Your task to perform on an android device: Open privacy settings Image 0: 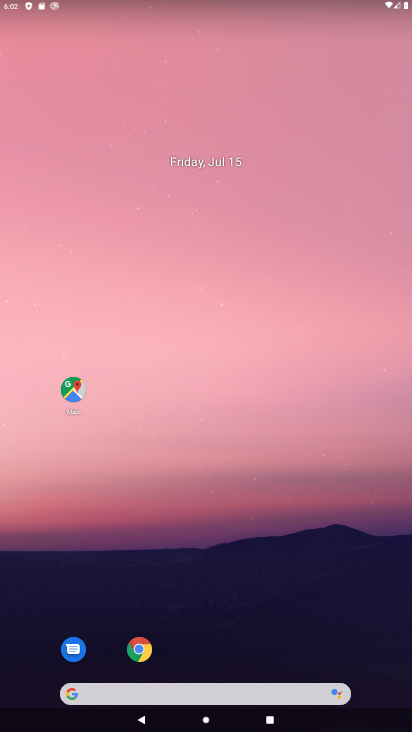
Step 0: press home button
Your task to perform on an android device: Open privacy settings Image 1: 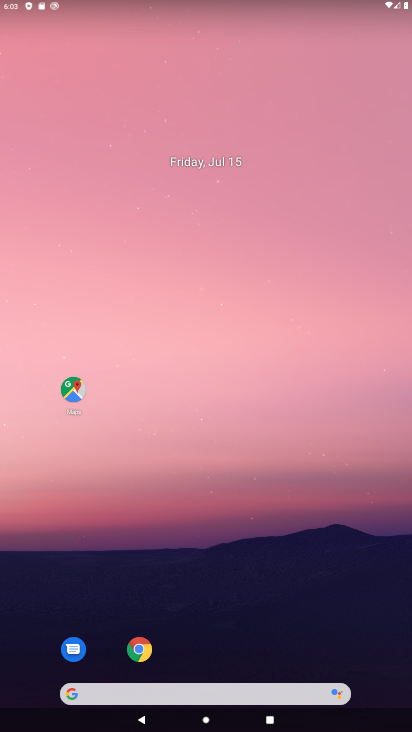
Step 1: drag from (275, 599) to (268, 37)
Your task to perform on an android device: Open privacy settings Image 2: 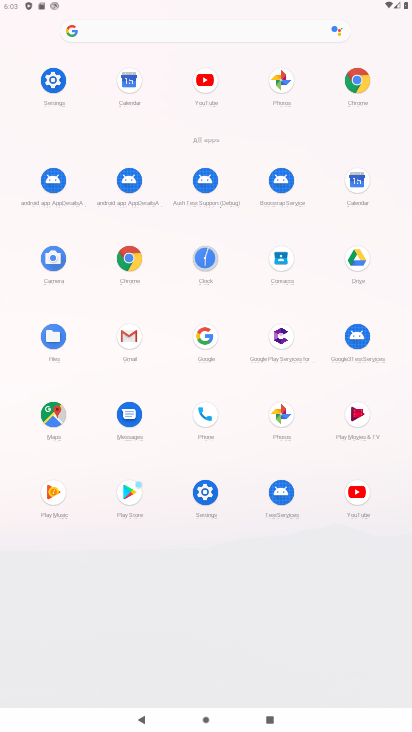
Step 2: click (58, 80)
Your task to perform on an android device: Open privacy settings Image 3: 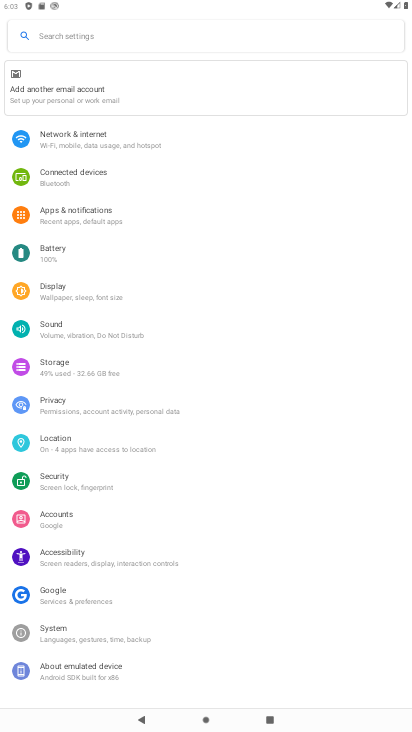
Step 3: click (59, 405)
Your task to perform on an android device: Open privacy settings Image 4: 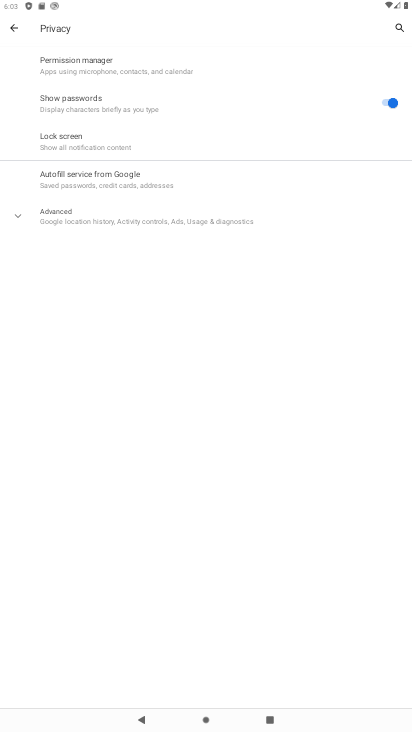
Step 4: task complete